Your task to perform on an android device: Clear all items from cart on newegg. Image 0: 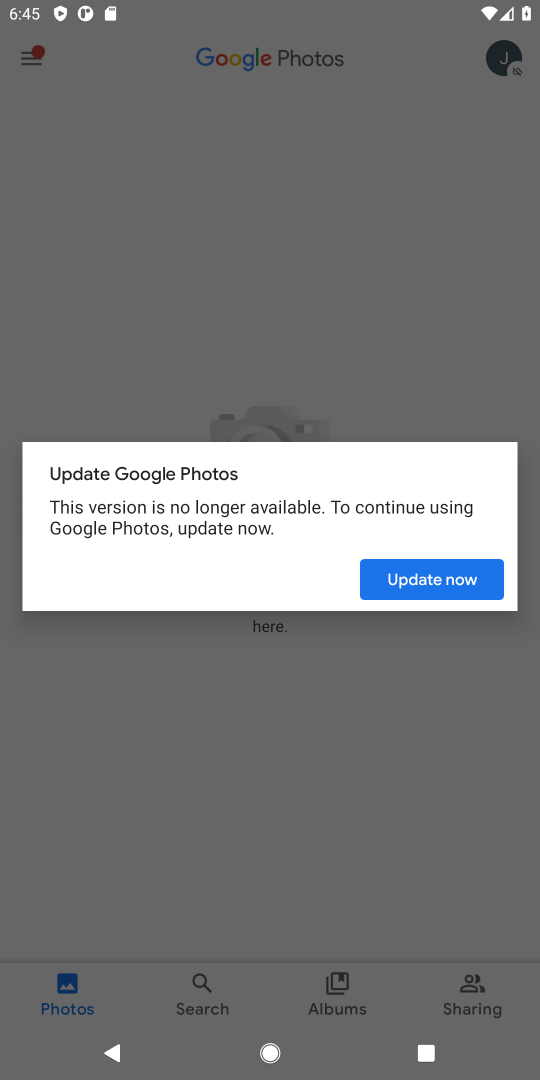
Step 0: press home button
Your task to perform on an android device: Clear all items from cart on newegg. Image 1: 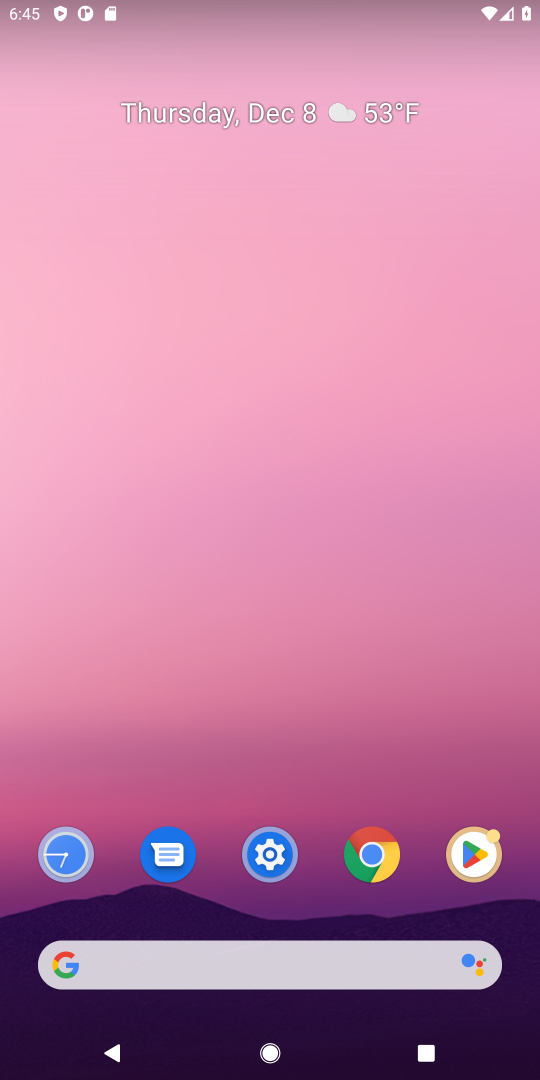
Step 1: click (100, 970)
Your task to perform on an android device: Clear all items from cart on newegg. Image 2: 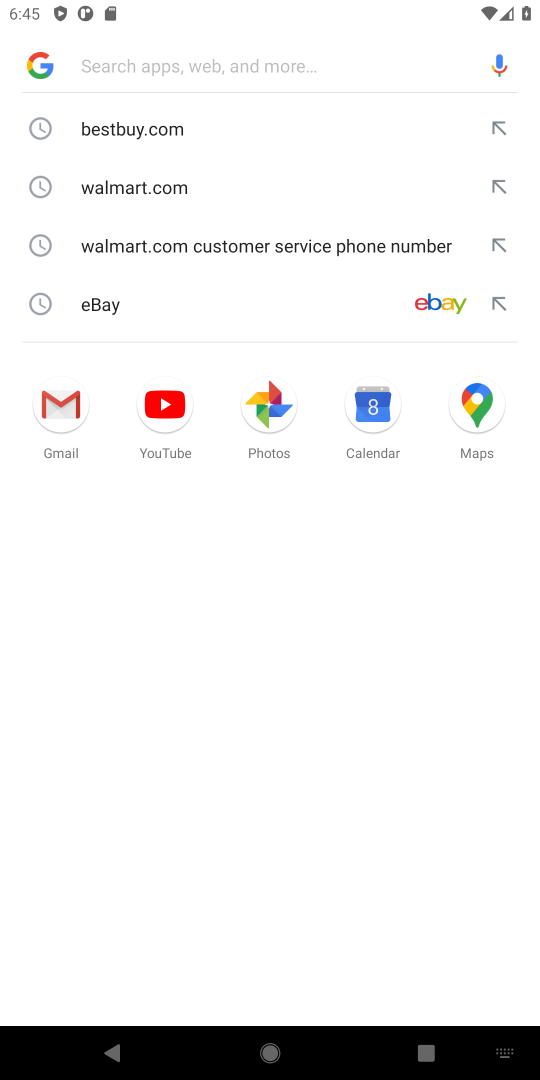
Step 2: type "newegg"
Your task to perform on an android device: Clear all items from cart on newegg. Image 3: 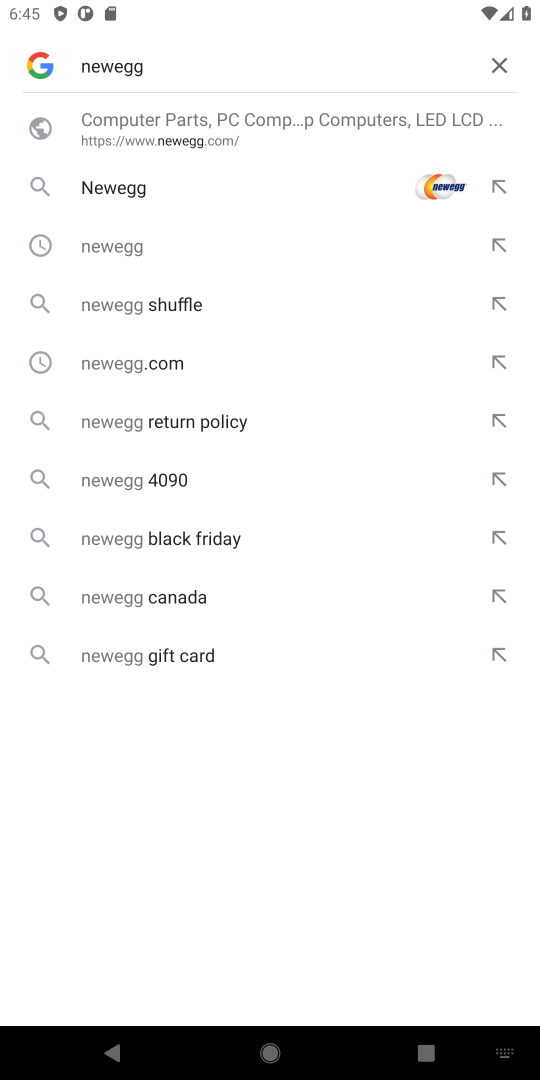
Step 3: press enter
Your task to perform on an android device: Clear all items from cart on newegg. Image 4: 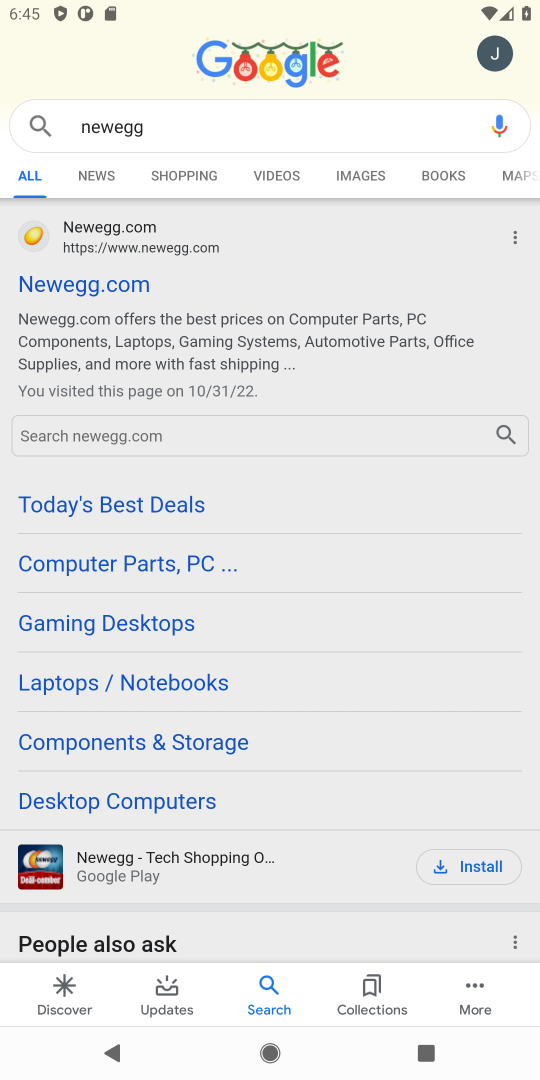
Step 4: click (78, 281)
Your task to perform on an android device: Clear all items from cart on newegg. Image 5: 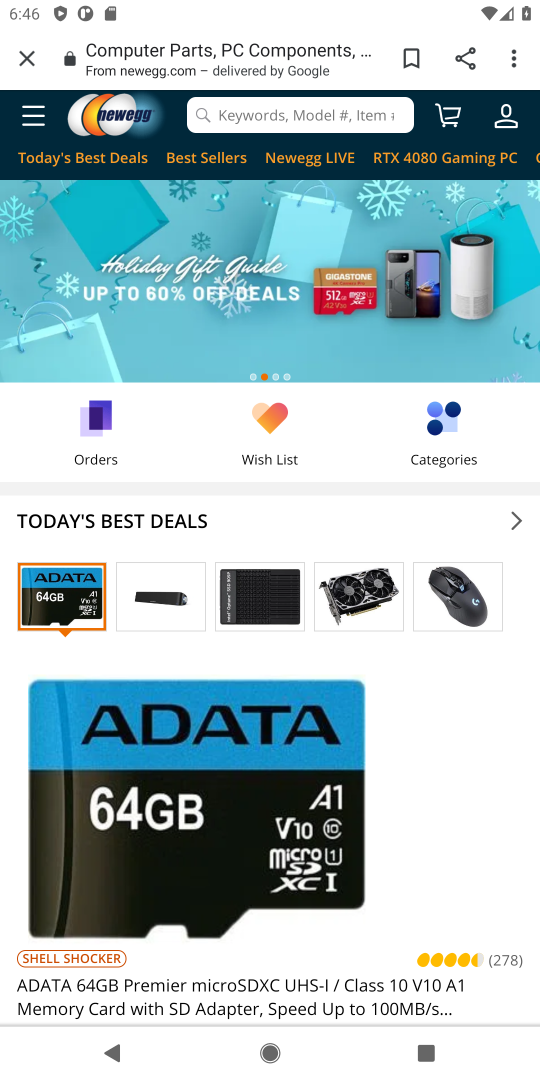
Step 5: click (452, 109)
Your task to perform on an android device: Clear all items from cart on newegg. Image 6: 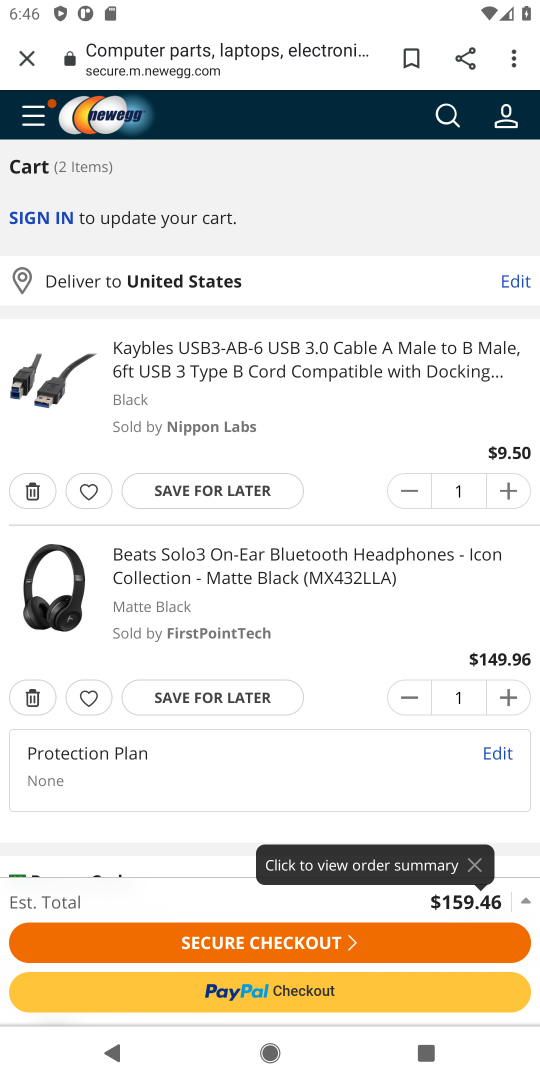
Step 6: click (24, 484)
Your task to perform on an android device: Clear all items from cart on newegg. Image 7: 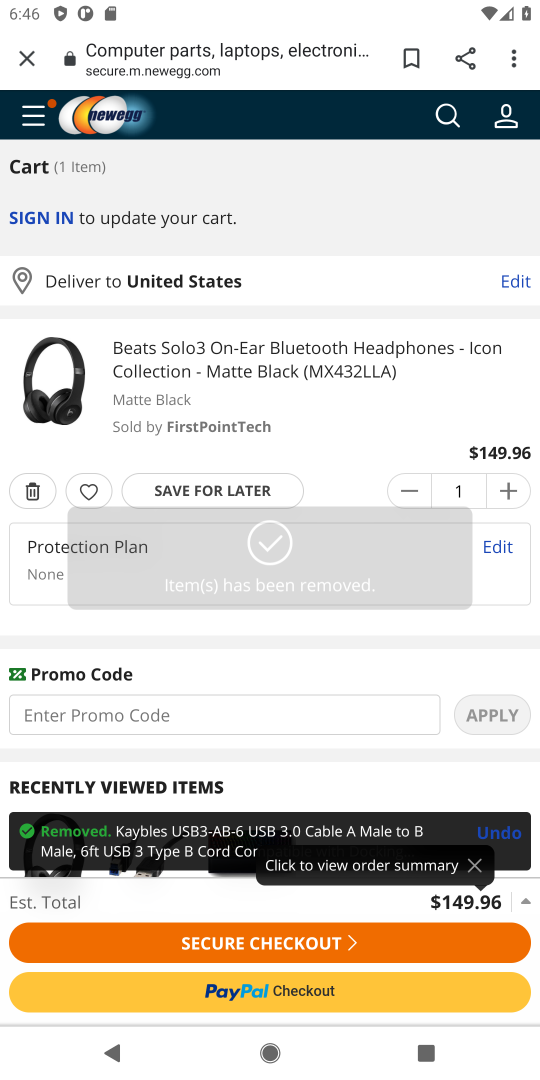
Step 7: click (30, 485)
Your task to perform on an android device: Clear all items from cart on newegg. Image 8: 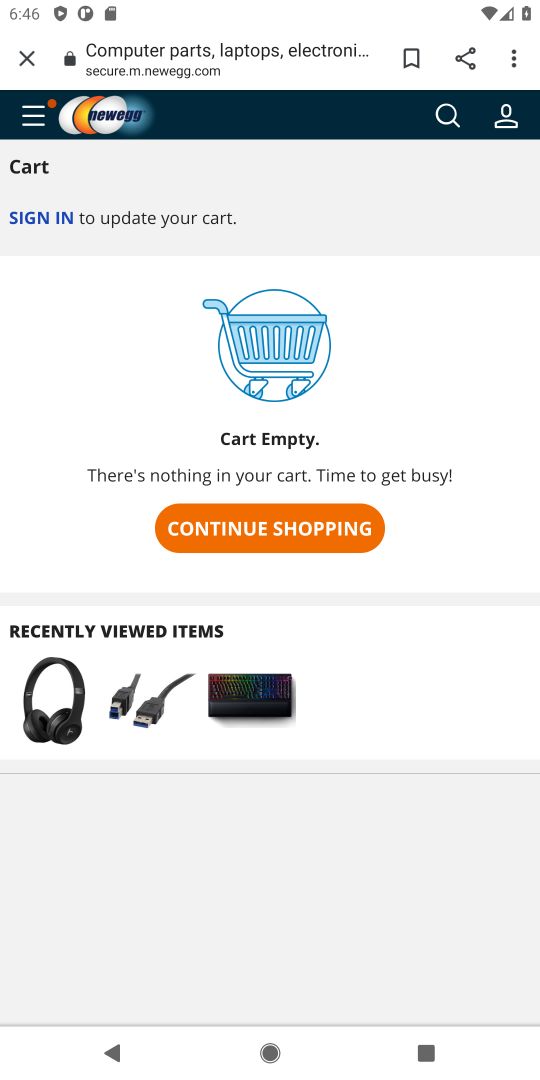
Step 8: task complete